Your task to perform on an android device: delete a single message in the gmail app Image 0: 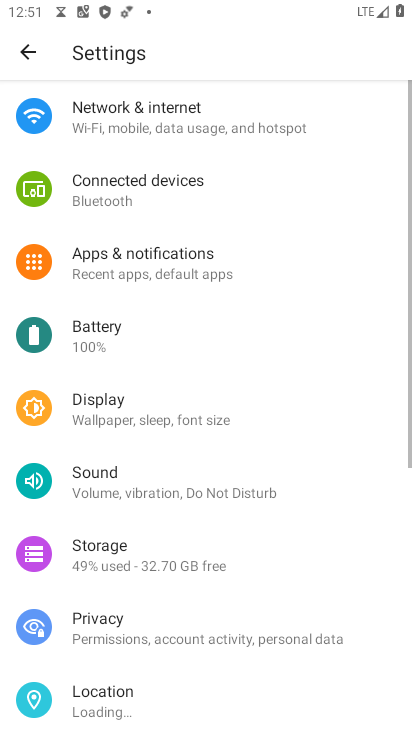
Step 0: press home button
Your task to perform on an android device: delete a single message in the gmail app Image 1: 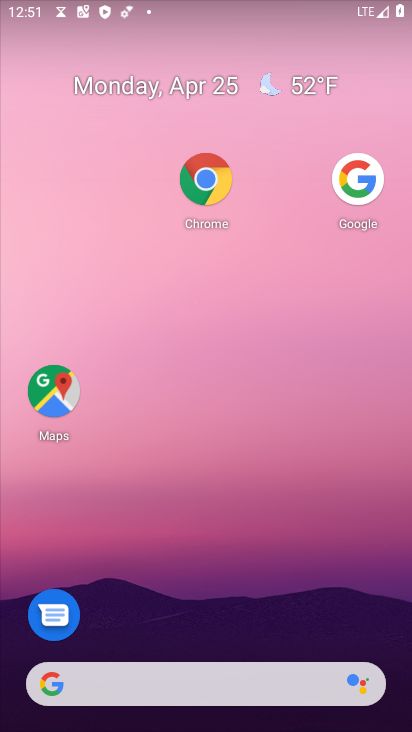
Step 1: drag from (121, 684) to (342, 113)
Your task to perform on an android device: delete a single message in the gmail app Image 2: 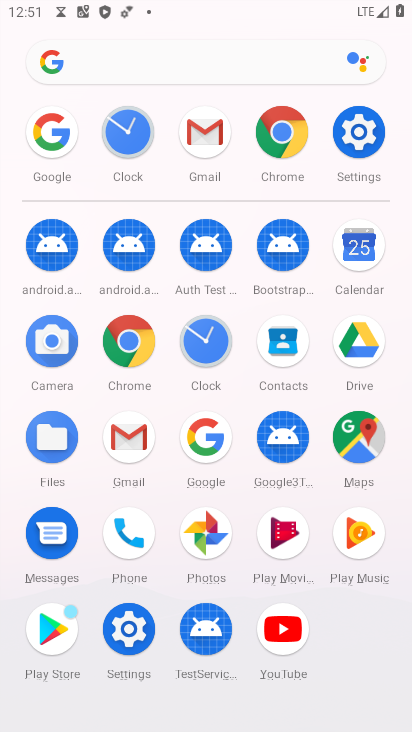
Step 2: click (125, 453)
Your task to perform on an android device: delete a single message in the gmail app Image 3: 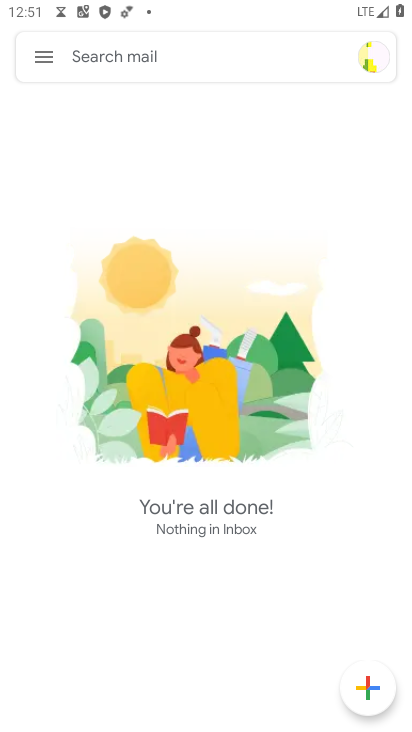
Step 3: task complete